Your task to perform on an android device: open a bookmark in the chrome app Image 0: 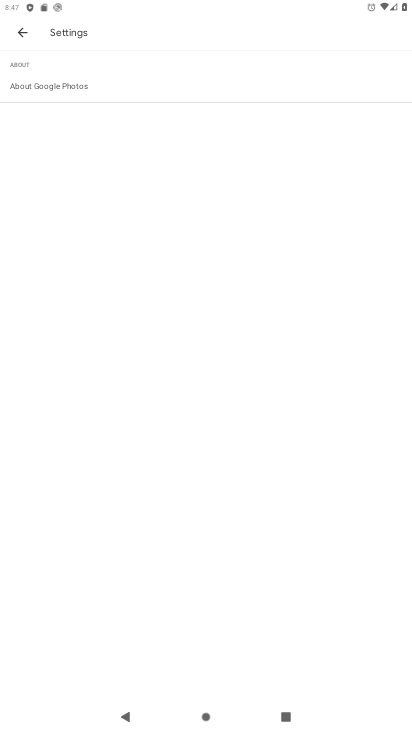
Step 0: press home button
Your task to perform on an android device: open a bookmark in the chrome app Image 1: 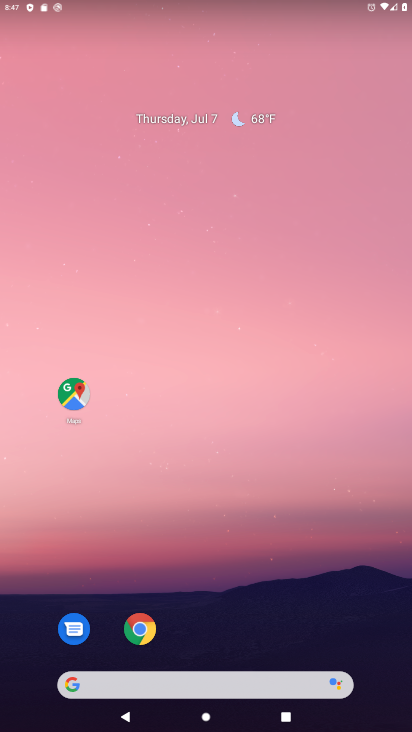
Step 1: click (142, 628)
Your task to perform on an android device: open a bookmark in the chrome app Image 2: 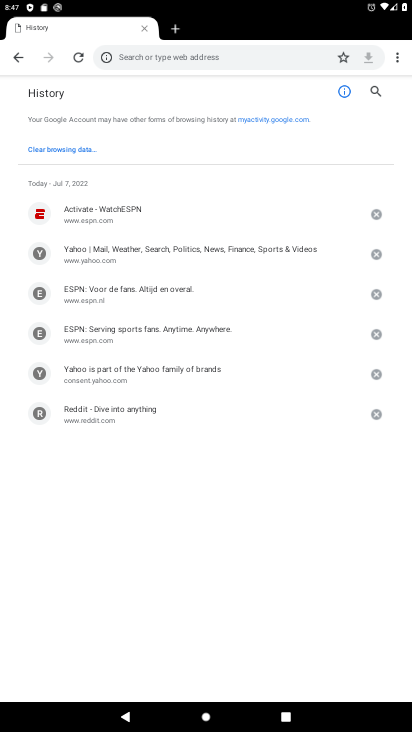
Step 2: click (394, 59)
Your task to perform on an android device: open a bookmark in the chrome app Image 3: 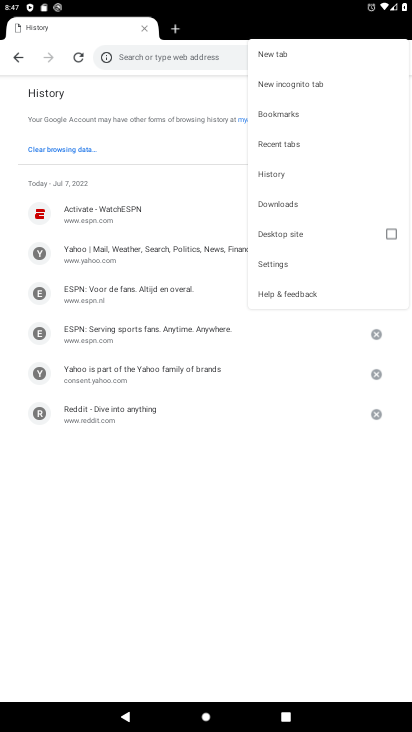
Step 3: click (296, 111)
Your task to perform on an android device: open a bookmark in the chrome app Image 4: 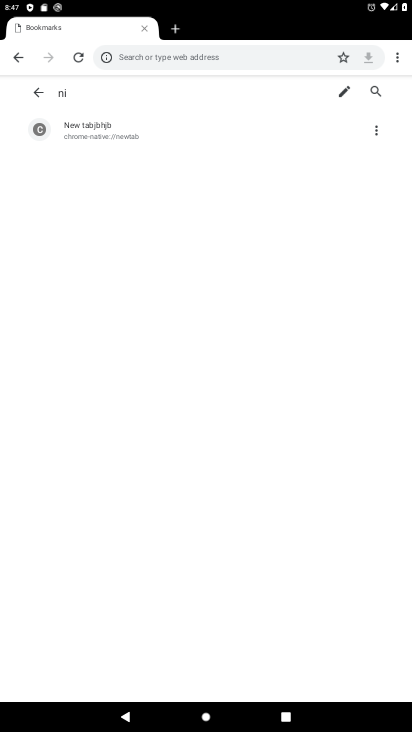
Step 4: task complete